Your task to perform on an android device: Open Chrome and go to settings Image 0: 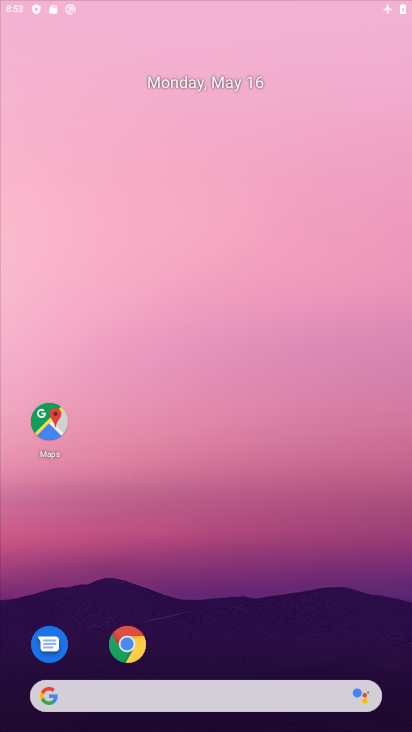
Step 0: click (135, 641)
Your task to perform on an android device: Open Chrome and go to settings Image 1: 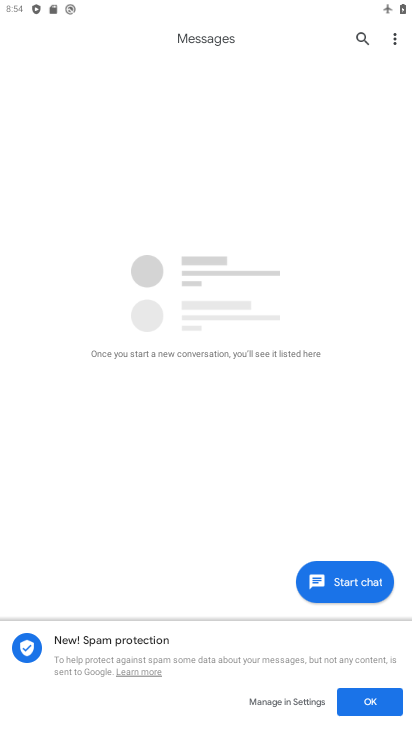
Step 1: press home button
Your task to perform on an android device: Open Chrome and go to settings Image 2: 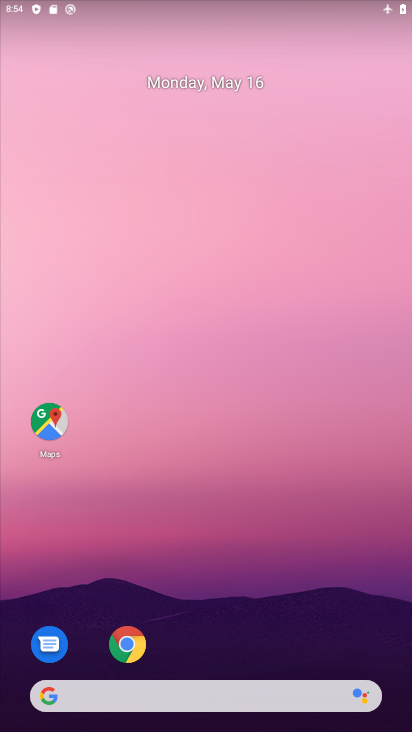
Step 2: click (125, 641)
Your task to perform on an android device: Open Chrome and go to settings Image 3: 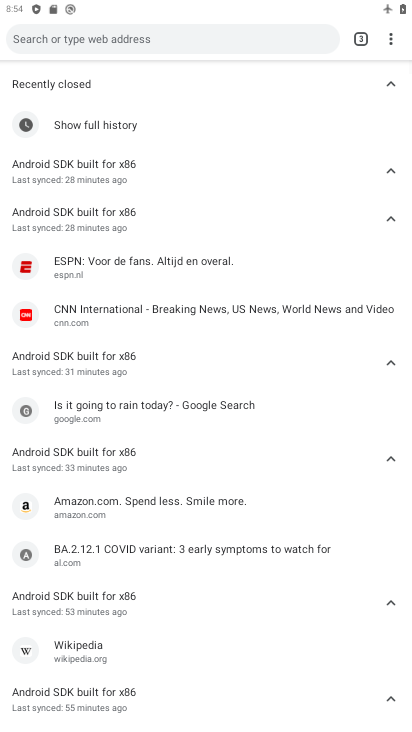
Step 3: click (386, 43)
Your task to perform on an android device: Open Chrome and go to settings Image 4: 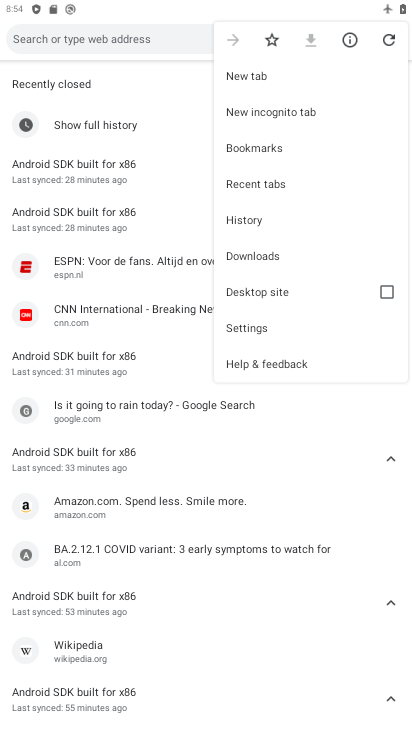
Step 4: click (264, 320)
Your task to perform on an android device: Open Chrome and go to settings Image 5: 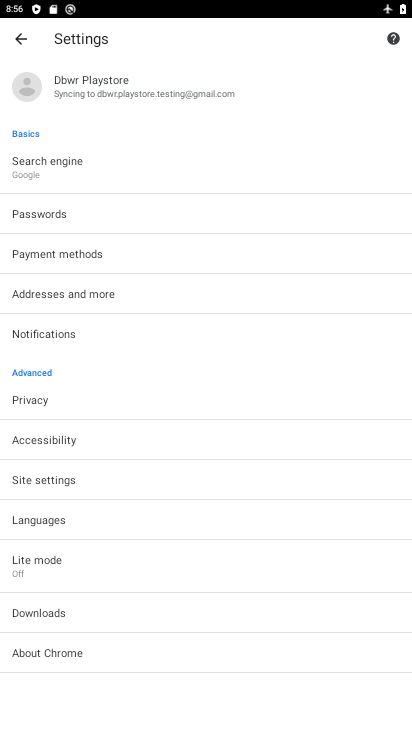
Step 5: task complete